Your task to perform on an android device: Open location settings Image 0: 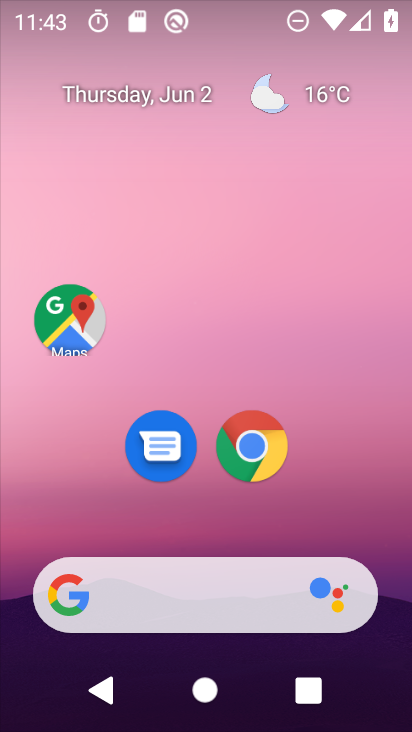
Step 0: drag from (373, 514) to (360, 124)
Your task to perform on an android device: Open location settings Image 1: 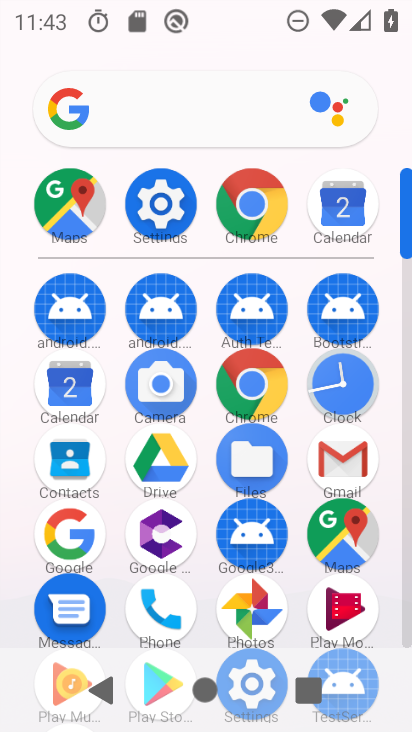
Step 1: click (165, 223)
Your task to perform on an android device: Open location settings Image 2: 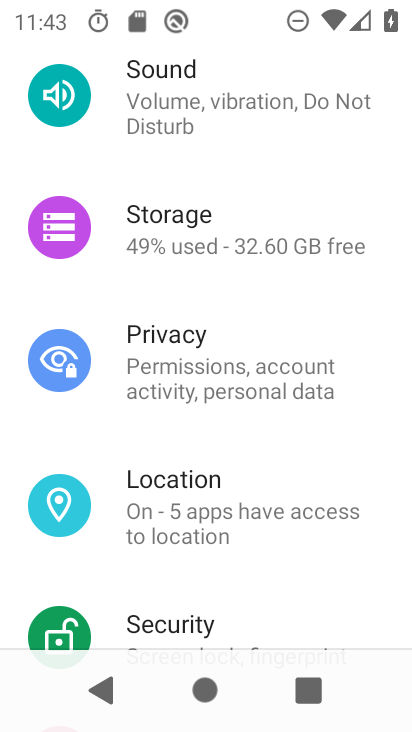
Step 2: drag from (354, 451) to (358, 288)
Your task to perform on an android device: Open location settings Image 3: 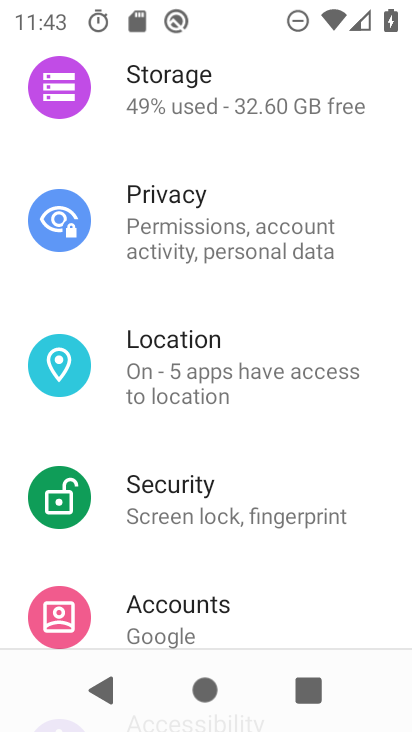
Step 3: drag from (368, 472) to (365, 298)
Your task to perform on an android device: Open location settings Image 4: 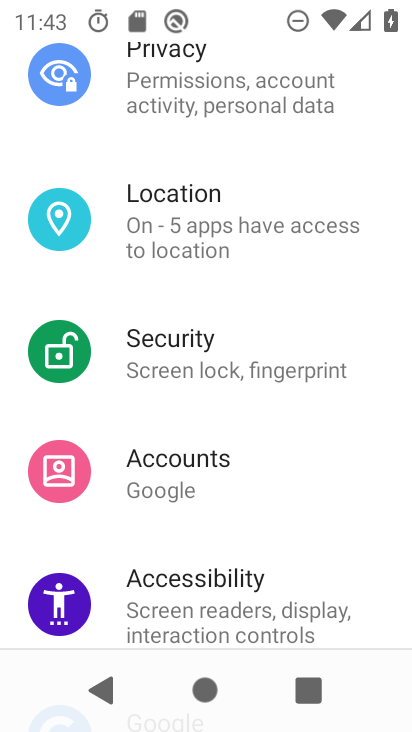
Step 4: drag from (353, 513) to (358, 351)
Your task to perform on an android device: Open location settings Image 5: 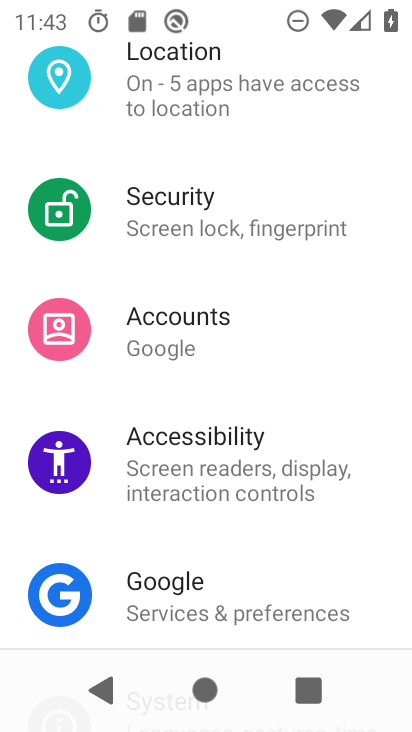
Step 5: drag from (356, 554) to (369, 262)
Your task to perform on an android device: Open location settings Image 6: 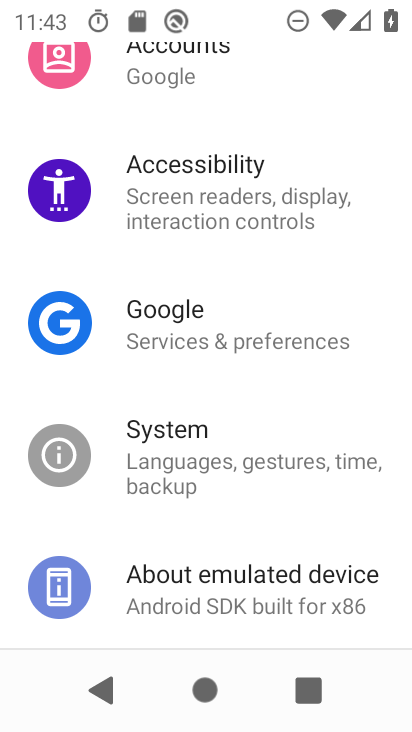
Step 6: drag from (366, 239) to (364, 395)
Your task to perform on an android device: Open location settings Image 7: 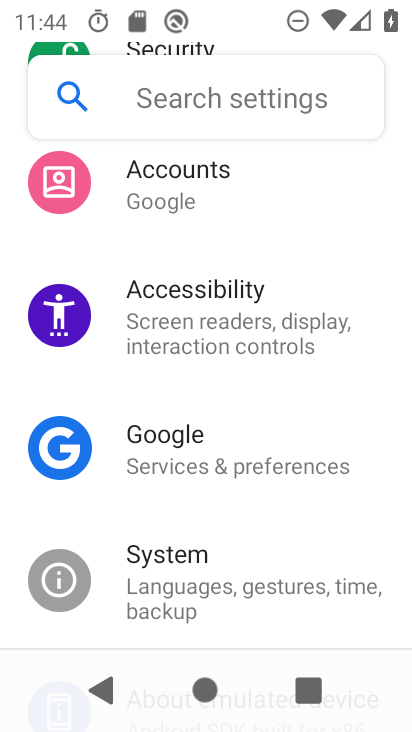
Step 7: drag from (350, 225) to (365, 397)
Your task to perform on an android device: Open location settings Image 8: 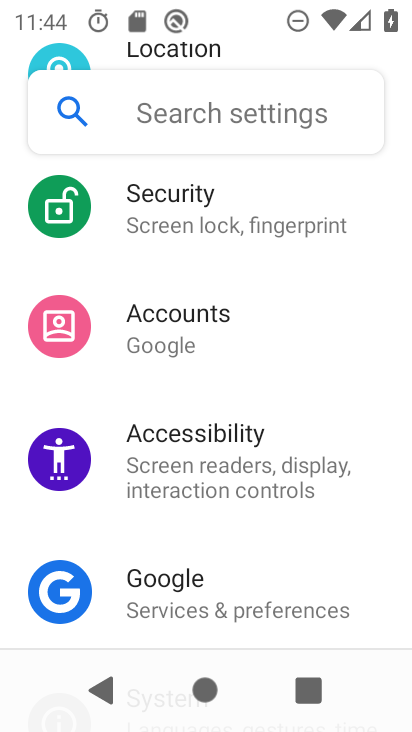
Step 8: drag from (363, 194) to (383, 388)
Your task to perform on an android device: Open location settings Image 9: 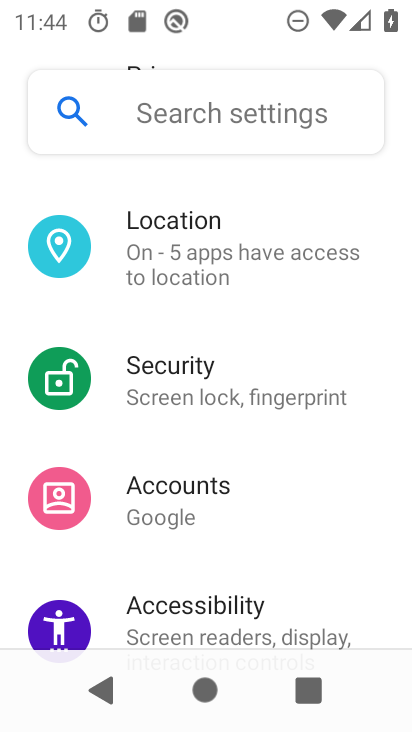
Step 9: click (278, 260)
Your task to perform on an android device: Open location settings Image 10: 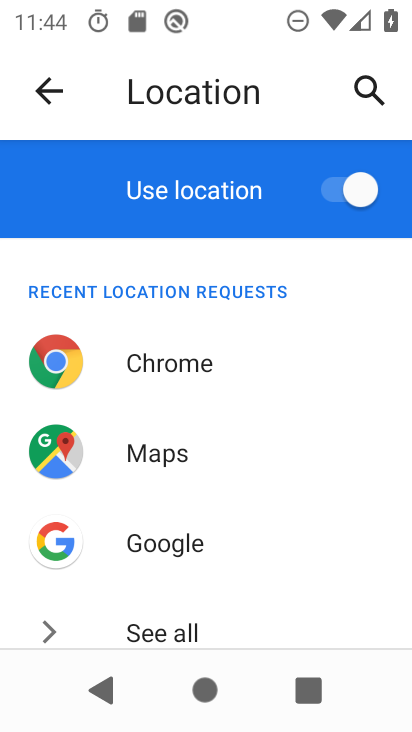
Step 10: task complete